Your task to perform on an android device: turn off location Image 0: 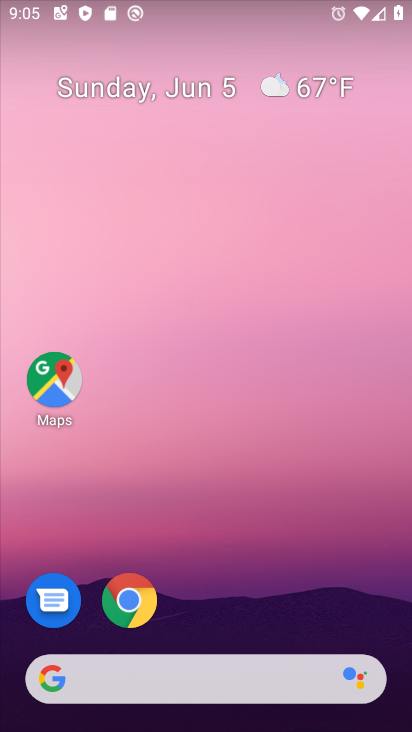
Step 0: drag from (391, 637) to (290, 81)
Your task to perform on an android device: turn off location Image 1: 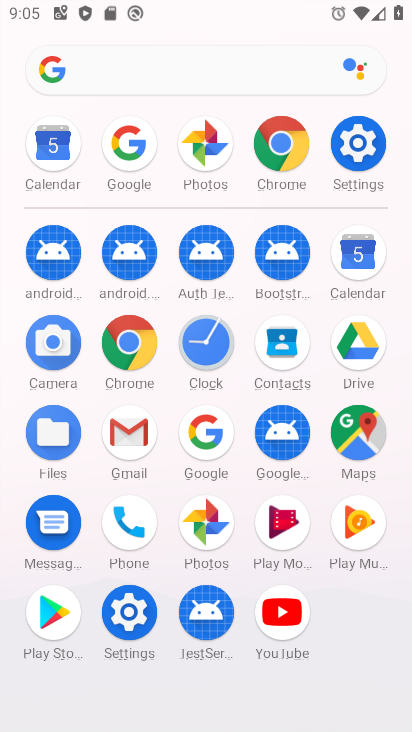
Step 1: click (136, 612)
Your task to perform on an android device: turn off location Image 2: 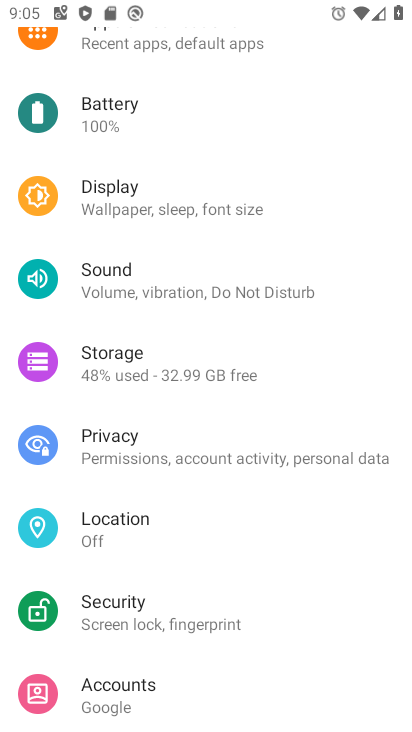
Step 2: click (167, 544)
Your task to perform on an android device: turn off location Image 3: 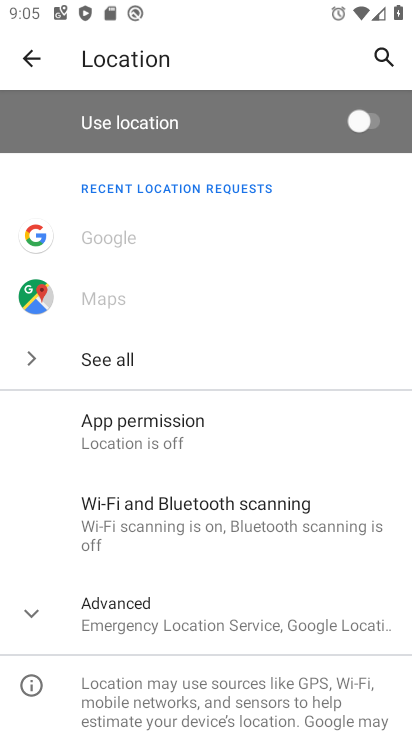
Step 3: task complete